Your task to perform on an android device: Open eBay Image 0: 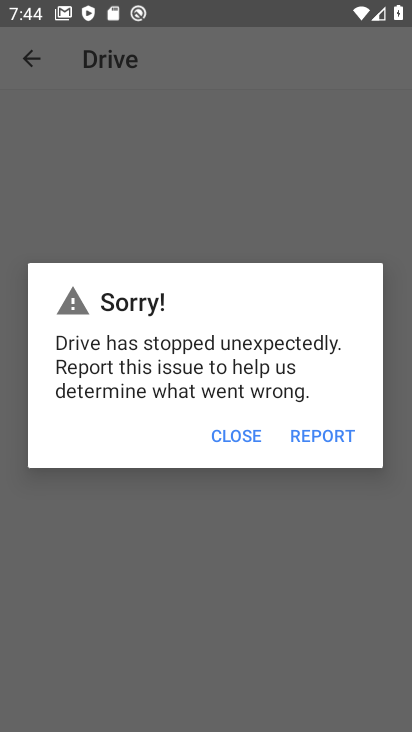
Step 0: click (124, 595)
Your task to perform on an android device: Open eBay Image 1: 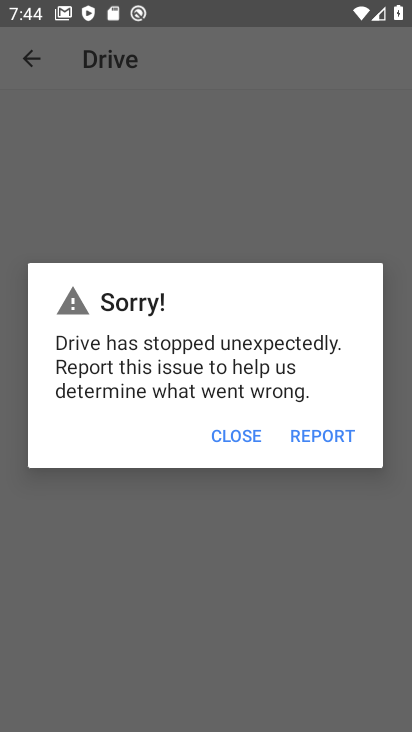
Step 1: press home button
Your task to perform on an android device: Open eBay Image 2: 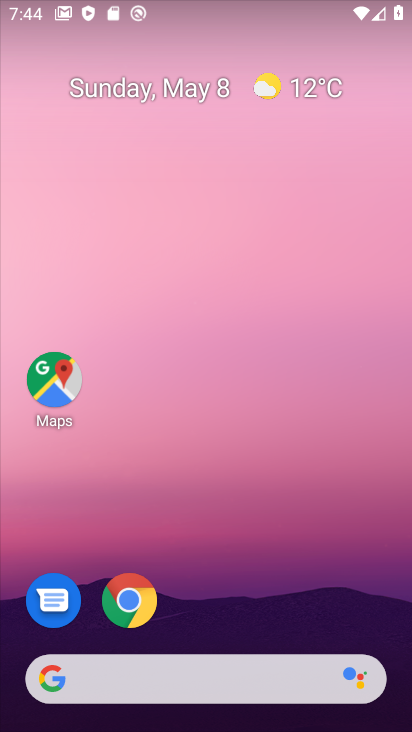
Step 2: click (128, 599)
Your task to perform on an android device: Open eBay Image 3: 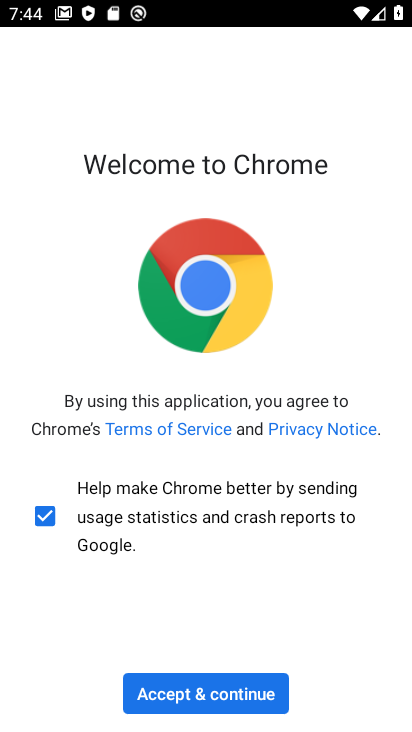
Step 3: click (281, 703)
Your task to perform on an android device: Open eBay Image 4: 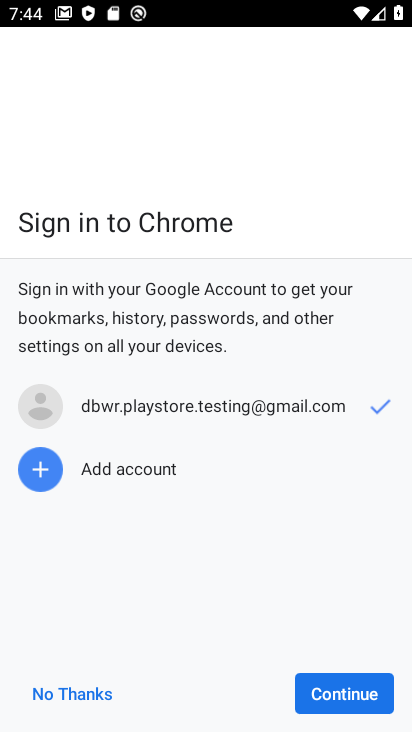
Step 4: click (311, 700)
Your task to perform on an android device: Open eBay Image 5: 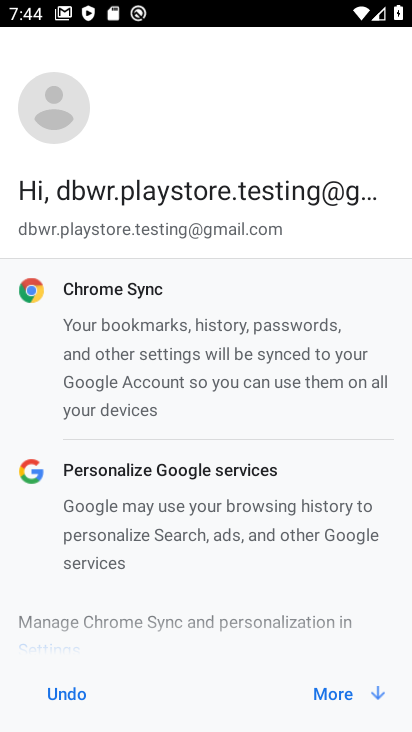
Step 5: click (313, 700)
Your task to perform on an android device: Open eBay Image 6: 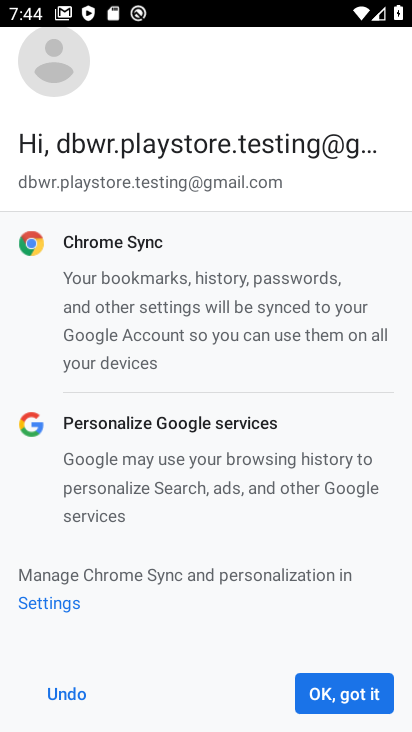
Step 6: click (313, 700)
Your task to perform on an android device: Open eBay Image 7: 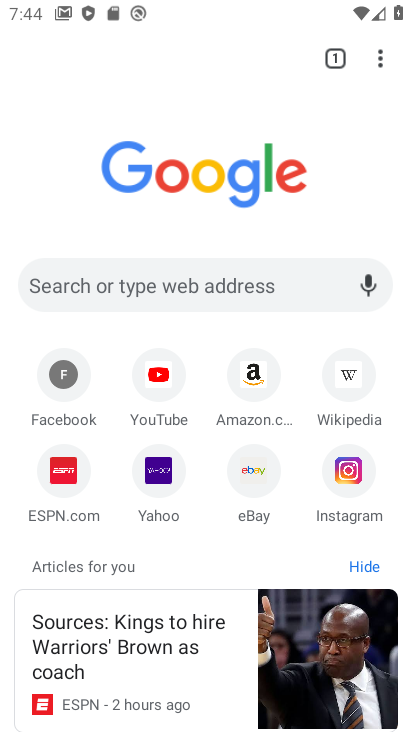
Step 7: click (251, 485)
Your task to perform on an android device: Open eBay Image 8: 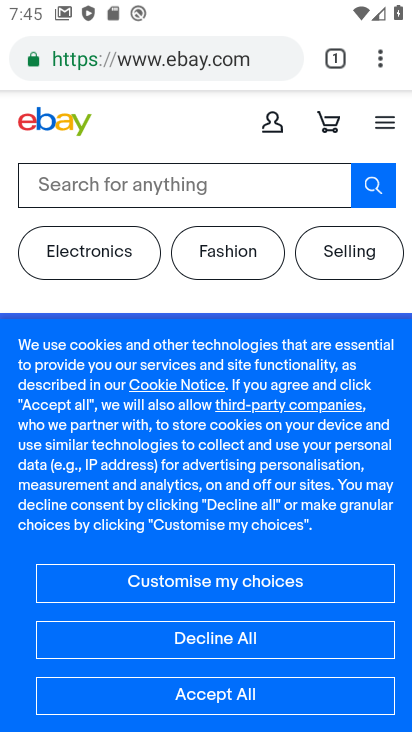
Step 8: task complete